Your task to perform on an android device: empty trash in the gmail app Image 0: 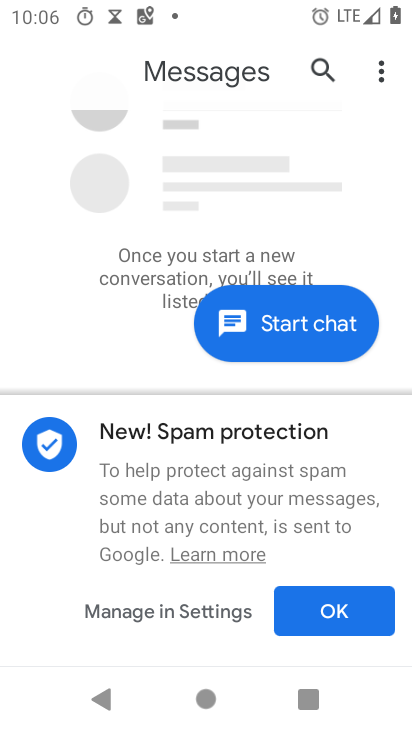
Step 0: press home button
Your task to perform on an android device: empty trash in the gmail app Image 1: 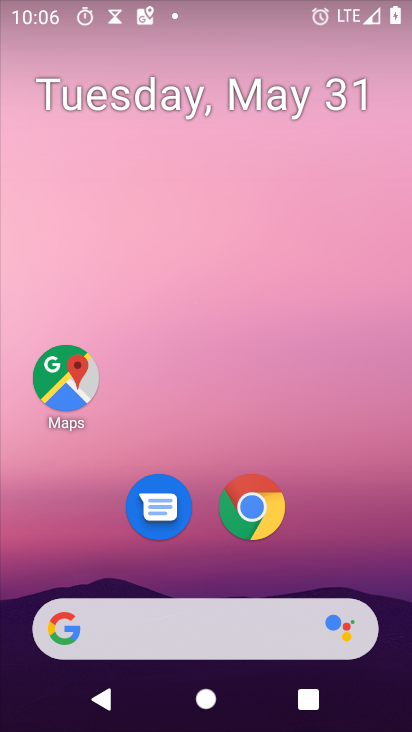
Step 1: drag from (42, 542) to (250, 129)
Your task to perform on an android device: empty trash in the gmail app Image 2: 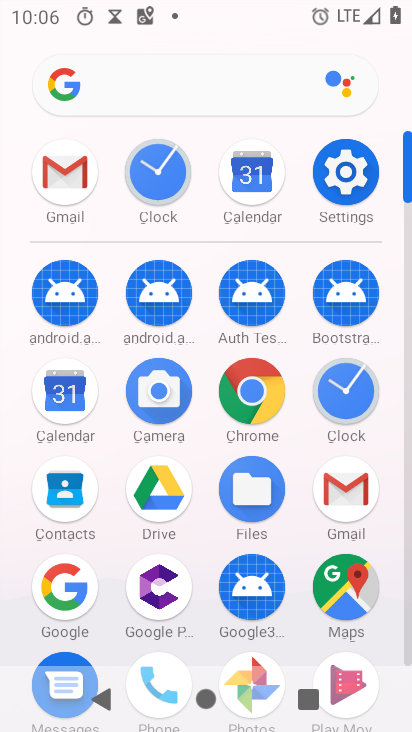
Step 2: click (66, 191)
Your task to perform on an android device: empty trash in the gmail app Image 3: 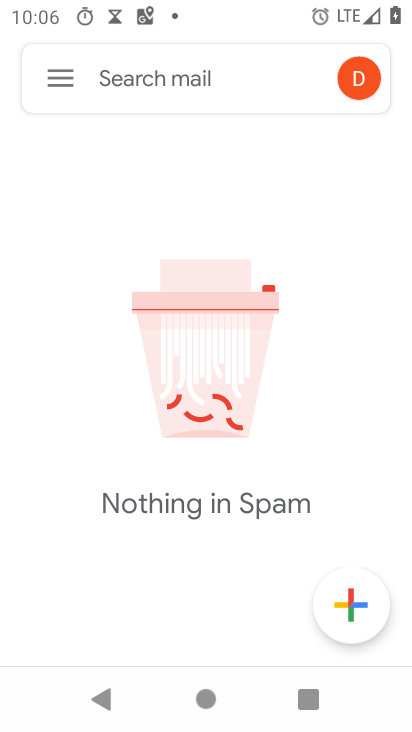
Step 3: click (60, 62)
Your task to perform on an android device: empty trash in the gmail app Image 4: 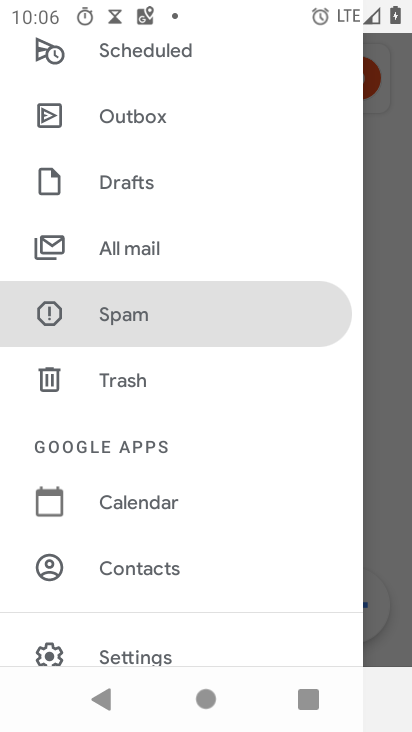
Step 4: click (119, 366)
Your task to perform on an android device: empty trash in the gmail app Image 5: 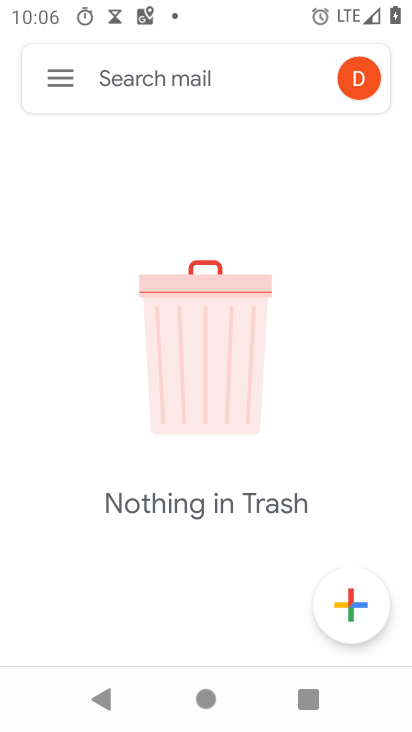
Step 5: task complete